Your task to perform on an android device: empty trash in google photos Image 0: 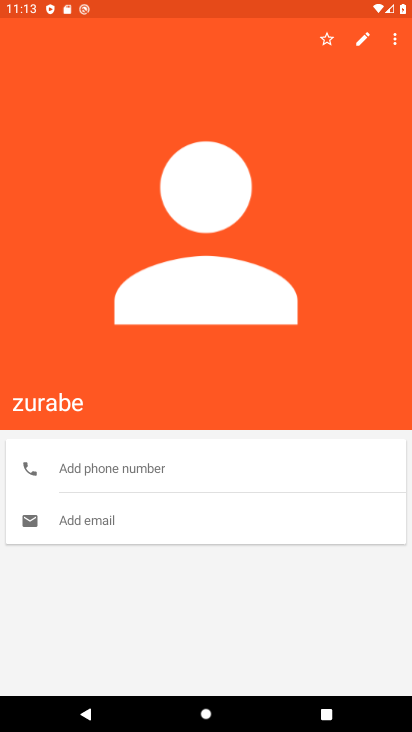
Step 0: press home button
Your task to perform on an android device: empty trash in google photos Image 1: 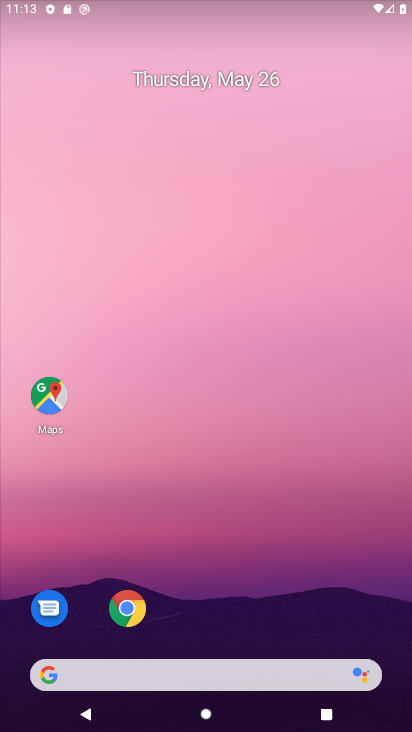
Step 1: drag from (291, 582) to (340, 73)
Your task to perform on an android device: empty trash in google photos Image 2: 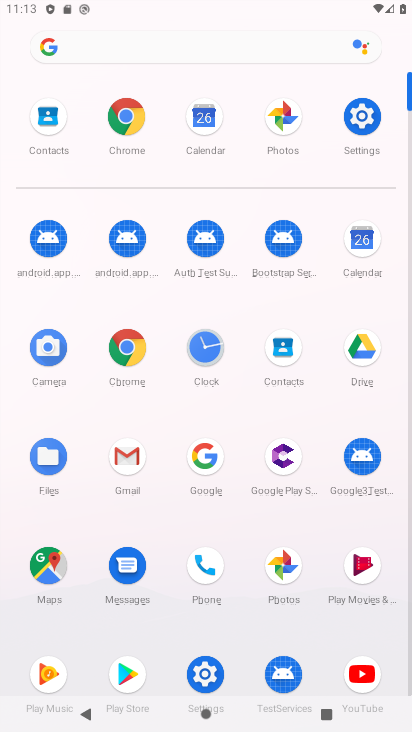
Step 2: click (287, 105)
Your task to perform on an android device: empty trash in google photos Image 3: 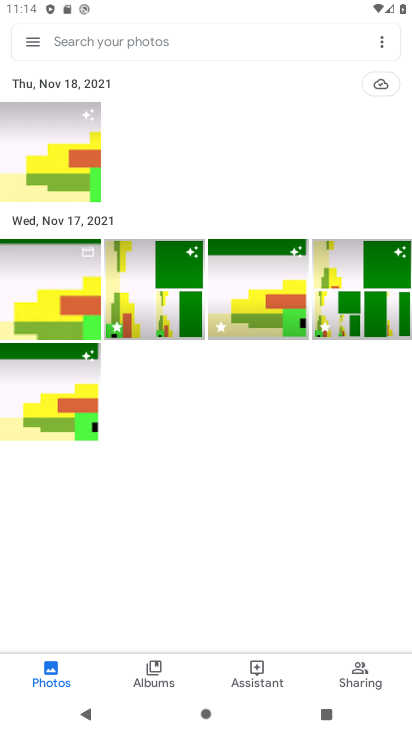
Step 3: click (39, 37)
Your task to perform on an android device: empty trash in google photos Image 4: 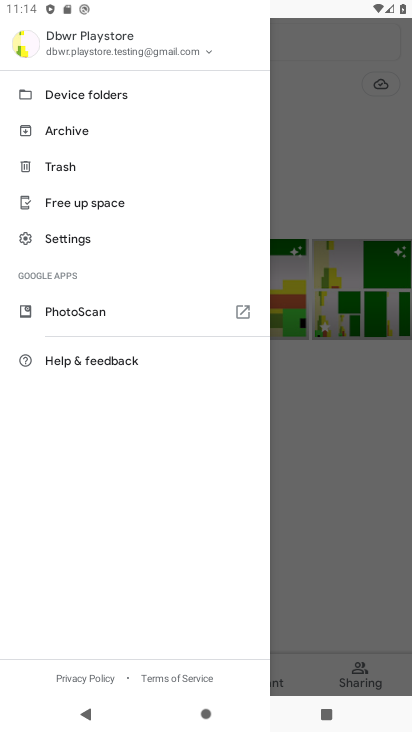
Step 4: click (55, 164)
Your task to perform on an android device: empty trash in google photos Image 5: 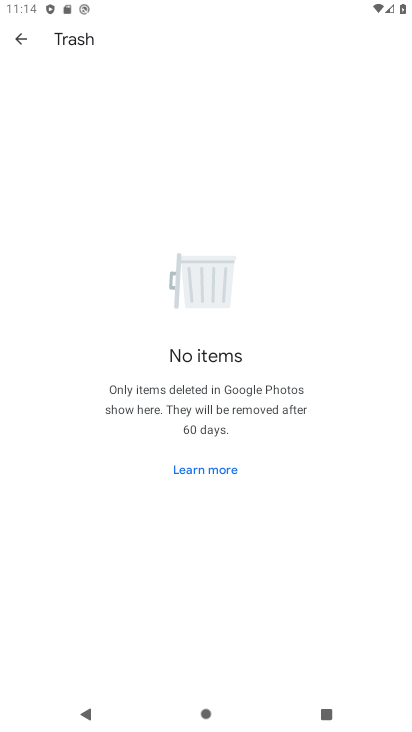
Step 5: task complete